Your task to perform on an android device: Search for hotels in Sydney Image 0: 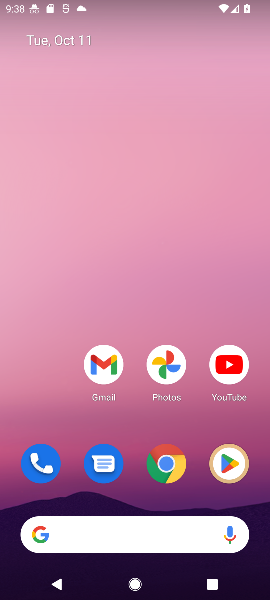
Step 0: drag from (69, 526) to (82, 136)
Your task to perform on an android device: Search for hotels in Sydney Image 1: 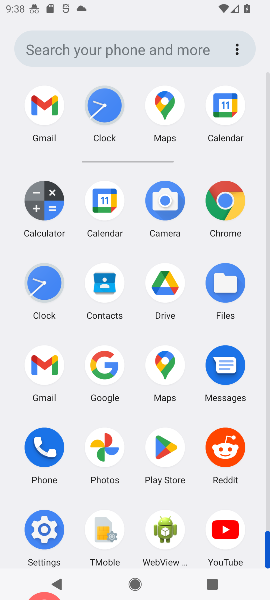
Step 1: click (104, 358)
Your task to perform on an android device: Search for hotels in Sydney Image 2: 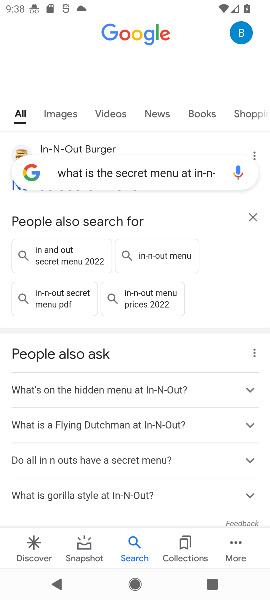
Step 2: click (122, 175)
Your task to perform on an android device: Search for hotels in Sydney Image 3: 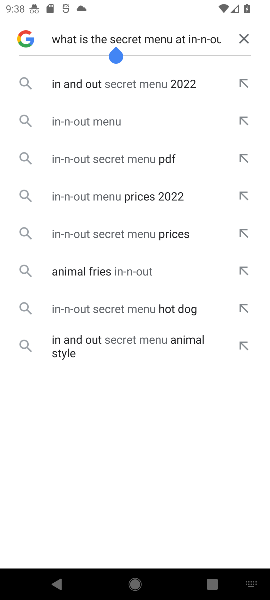
Step 3: click (241, 36)
Your task to perform on an android device: Search for hotels in Sydney Image 4: 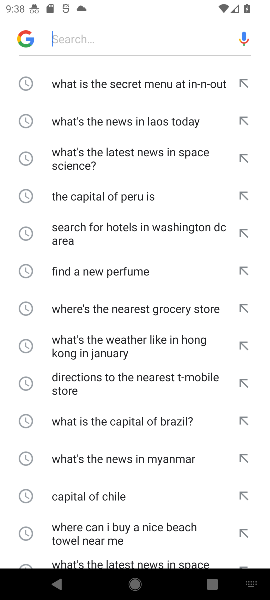
Step 4: click (102, 24)
Your task to perform on an android device: Search for hotels in Sydney Image 5: 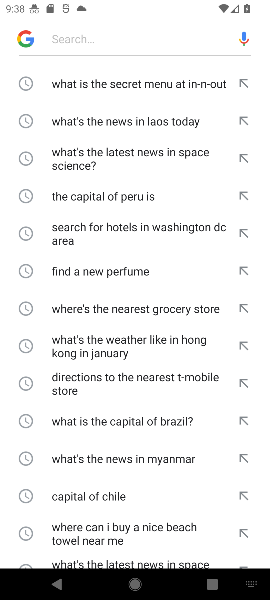
Step 5: type "Search for hotels in Sydney "
Your task to perform on an android device: Search for hotels in Sydney Image 6: 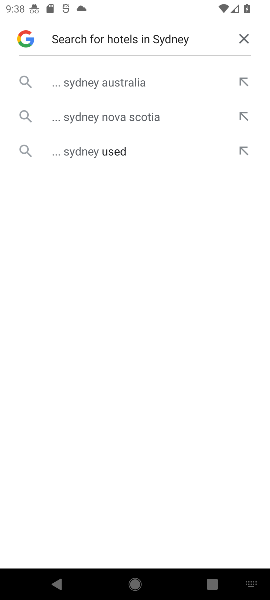
Step 6: click (117, 83)
Your task to perform on an android device: Search for hotels in Sydney Image 7: 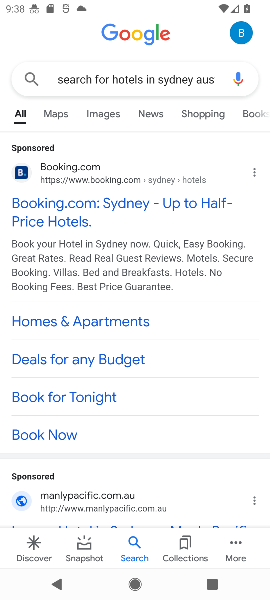
Step 7: click (57, 215)
Your task to perform on an android device: Search for hotels in Sydney Image 8: 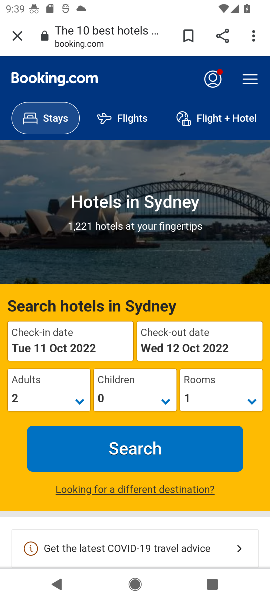
Step 8: click (161, 439)
Your task to perform on an android device: Search for hotels in Sydney Image 9: 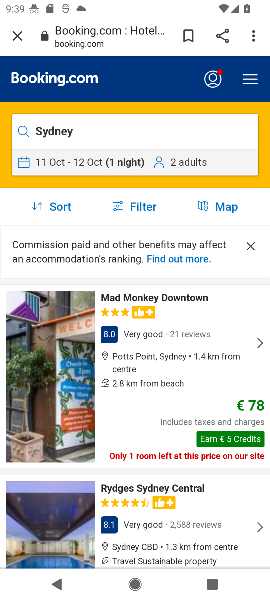
Step 9: task complete